Your task to perform on an android device: Open Chrome and go to settings Image 0: 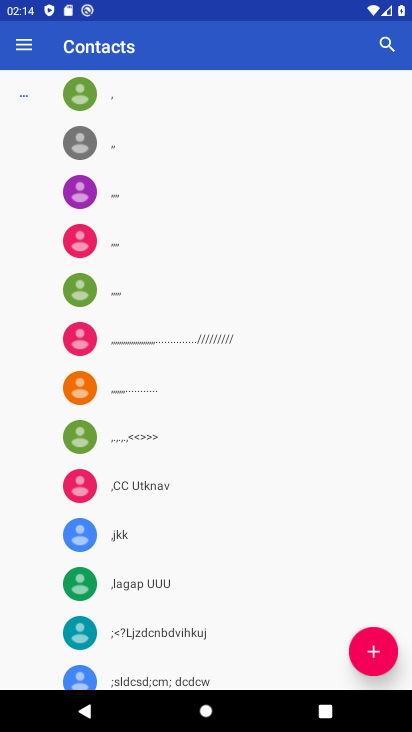
Step 0: press home button
Your task to perform on an android device: Open Chrome and go to settings Image 1: 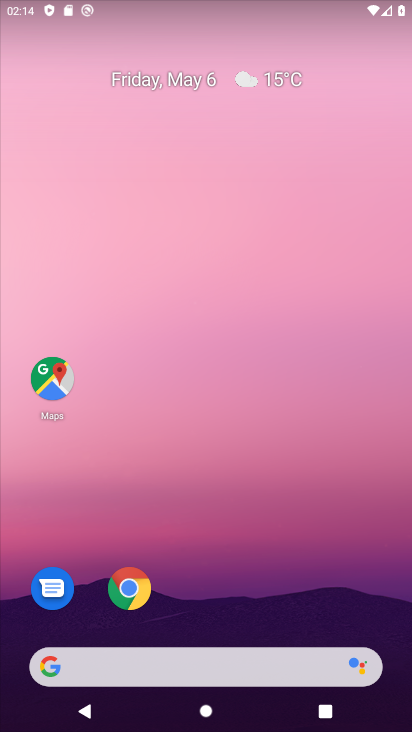
Step 1: click (141, 579)
Your task to perform on an android device: Open Chrome and go to settings Image 2: 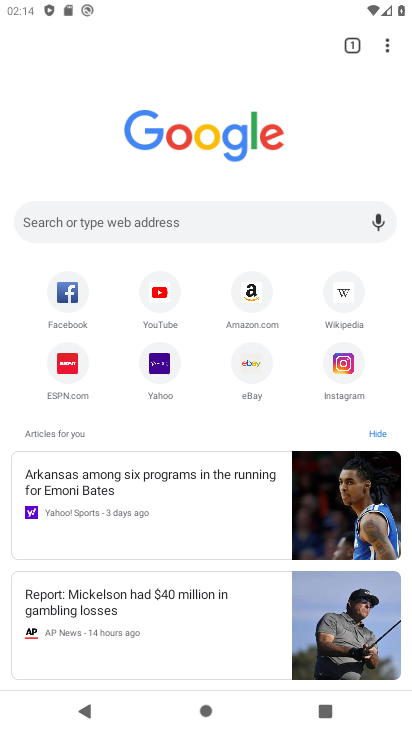
Step 2: click (384, 48)
Your task to perform on an android device: Open Chrome and go to settings Image 3: 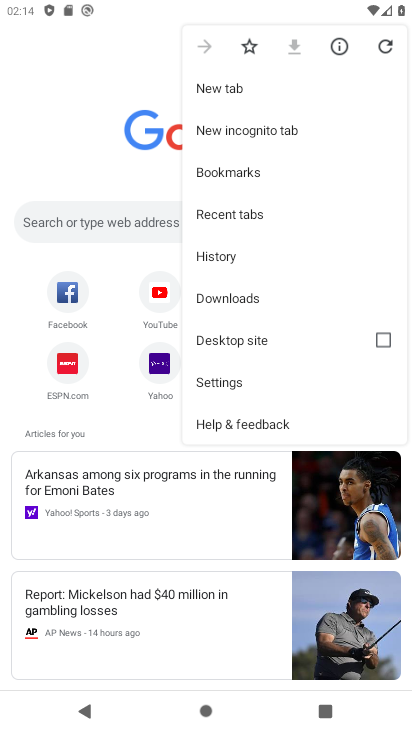
Step 3: click (206, 383)
Your task to perform on an android device: Open Chrome and go to settings Image 4: 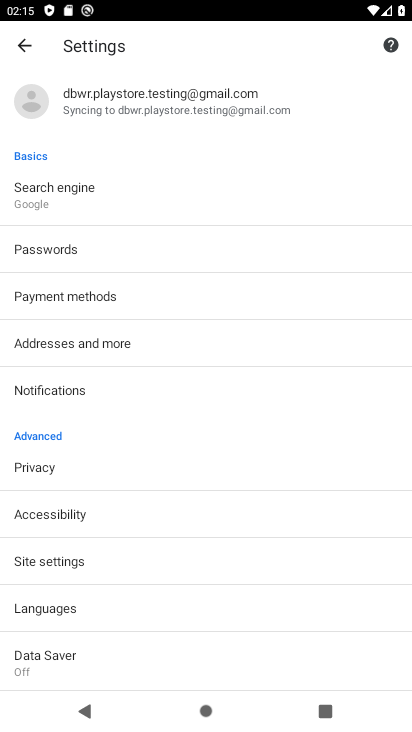
Step 4: task complete